Your task to perform on an android device: Search for "logitech g pro" on amazon.com, select the first entry, and add it to the cart. Image 0: 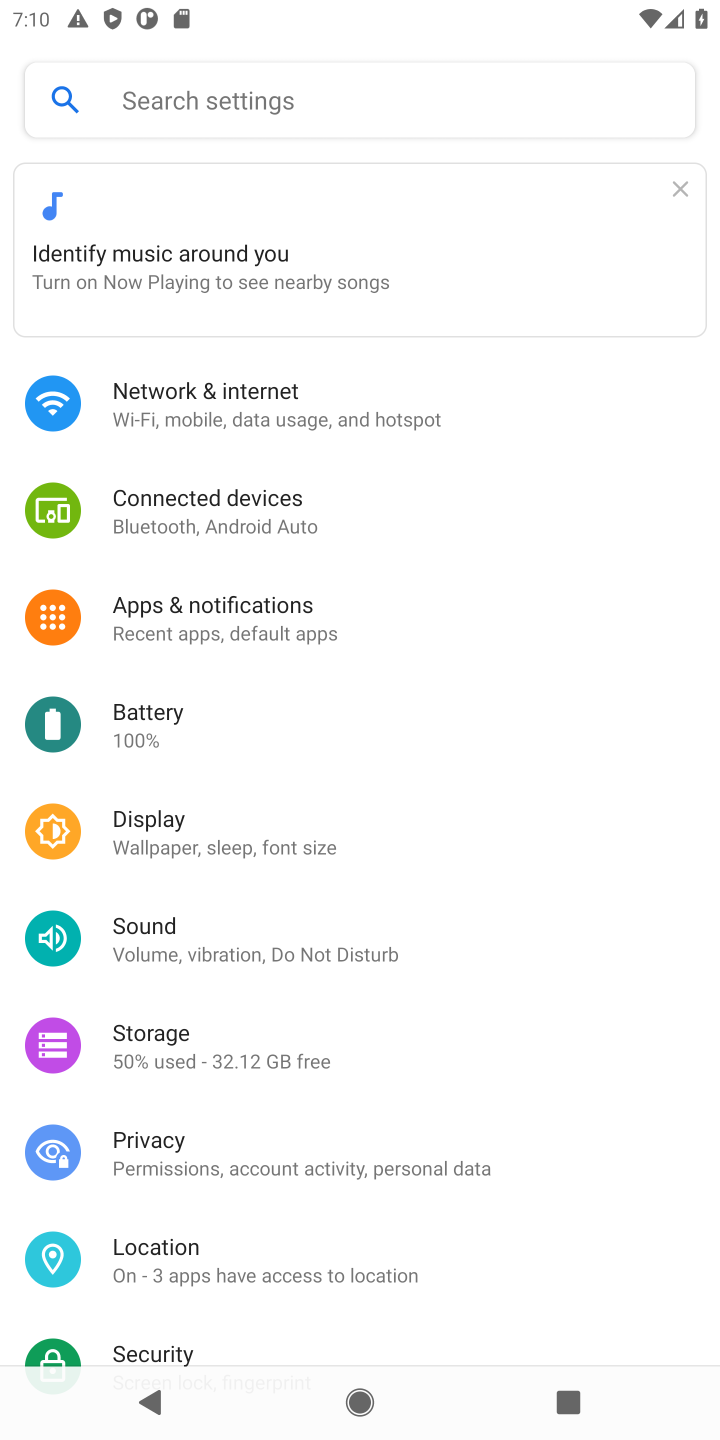
Step 0: press home button
Your task to perform on an android device: Search for "logitech g pro" on amazon.com, select the first entry, and add it to the cart. Image 1: 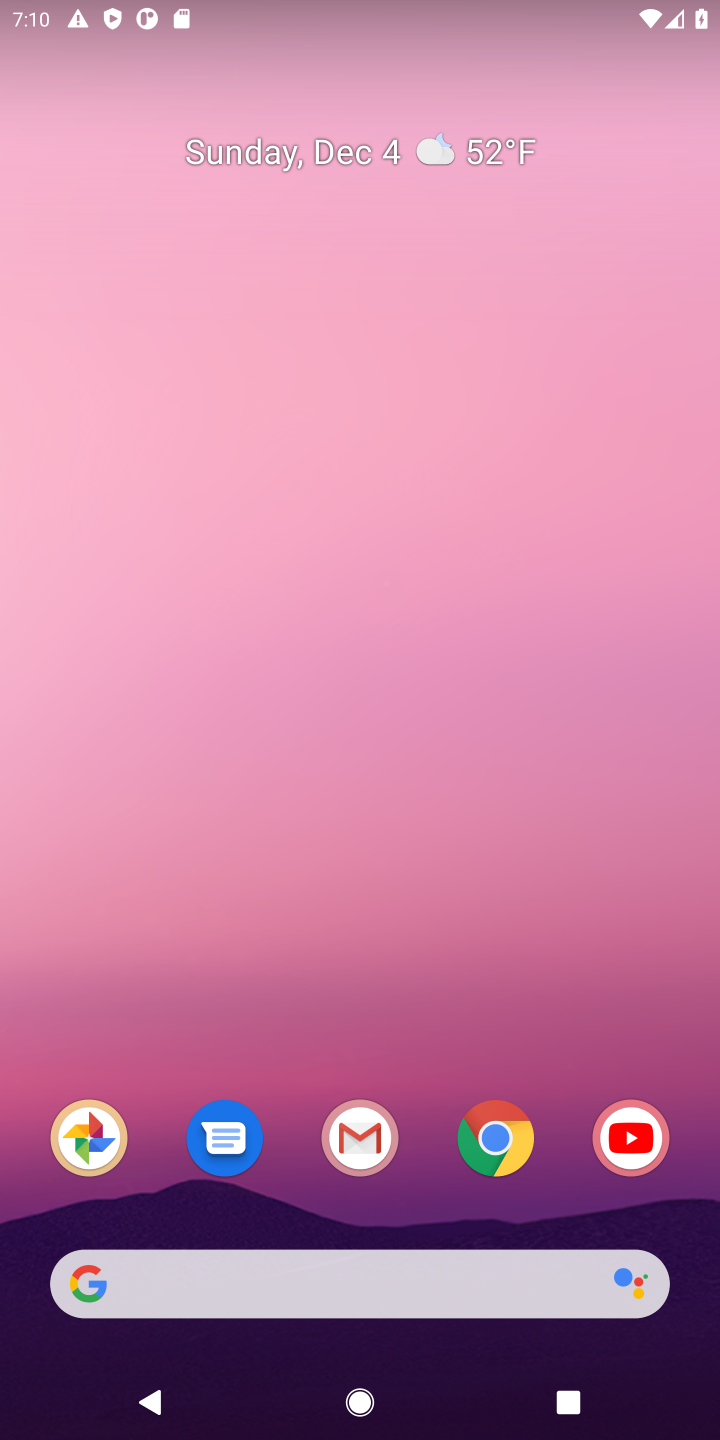
Step 1: click (506, 1144)
Your task to perform on an android device: Search for "logitech g pro" on amazon.com, select the first entry, and add it to the cart. Image 2: 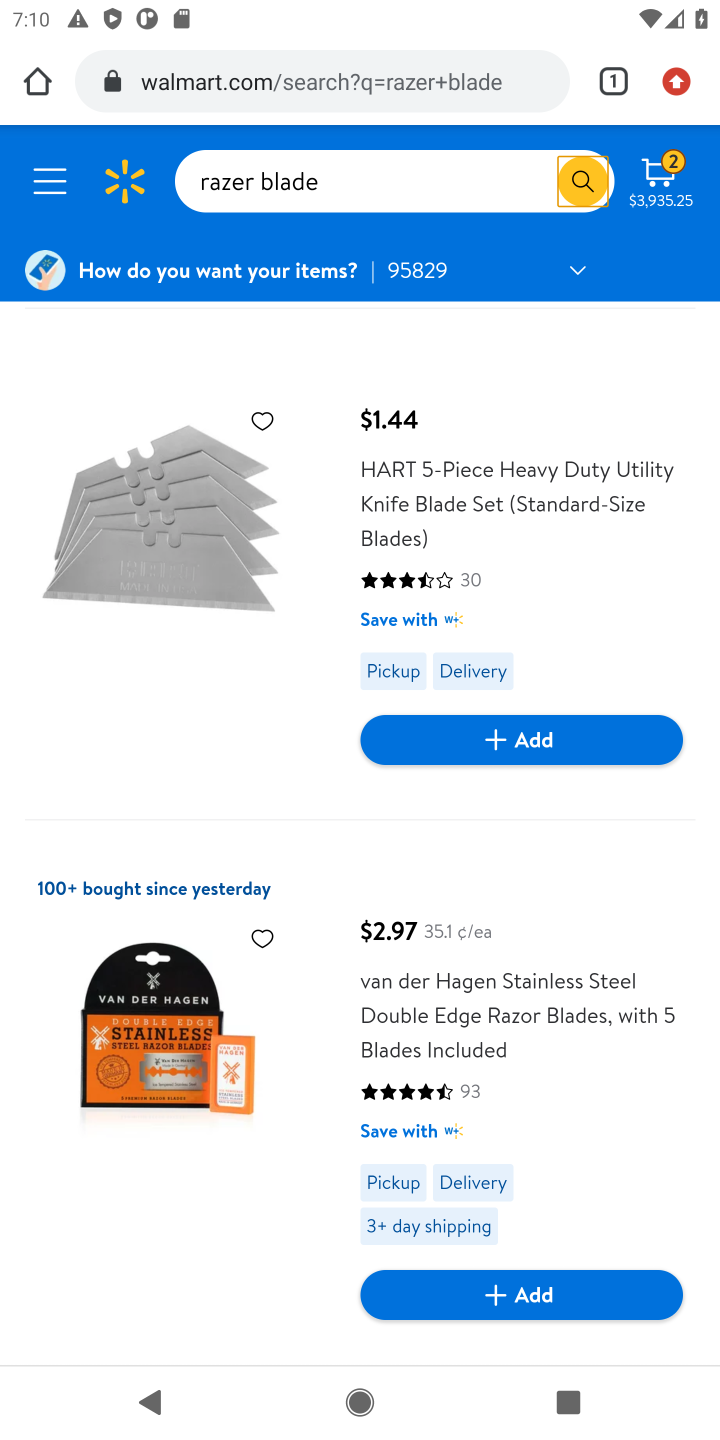
Step 2: click (397, 69)
Your task to perform on an android device: Search for "logitech g pro" on amazon.com, select the first entry, and add it to the cart. Image 3: 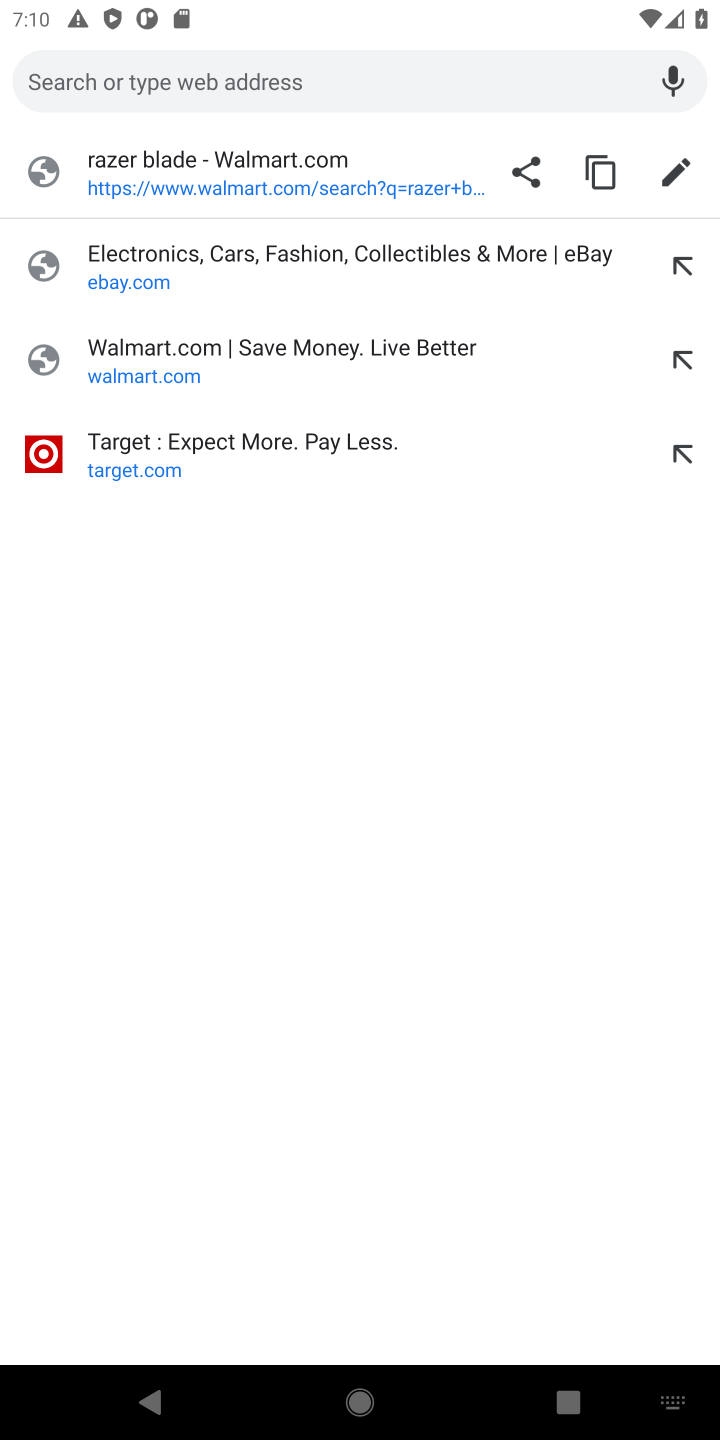
Step 3: type "amazon.com"
Your task to perform on an android device: Search for "logitech g pro" on amazon.com, select the first entry, and add it to the cart. Image 4: 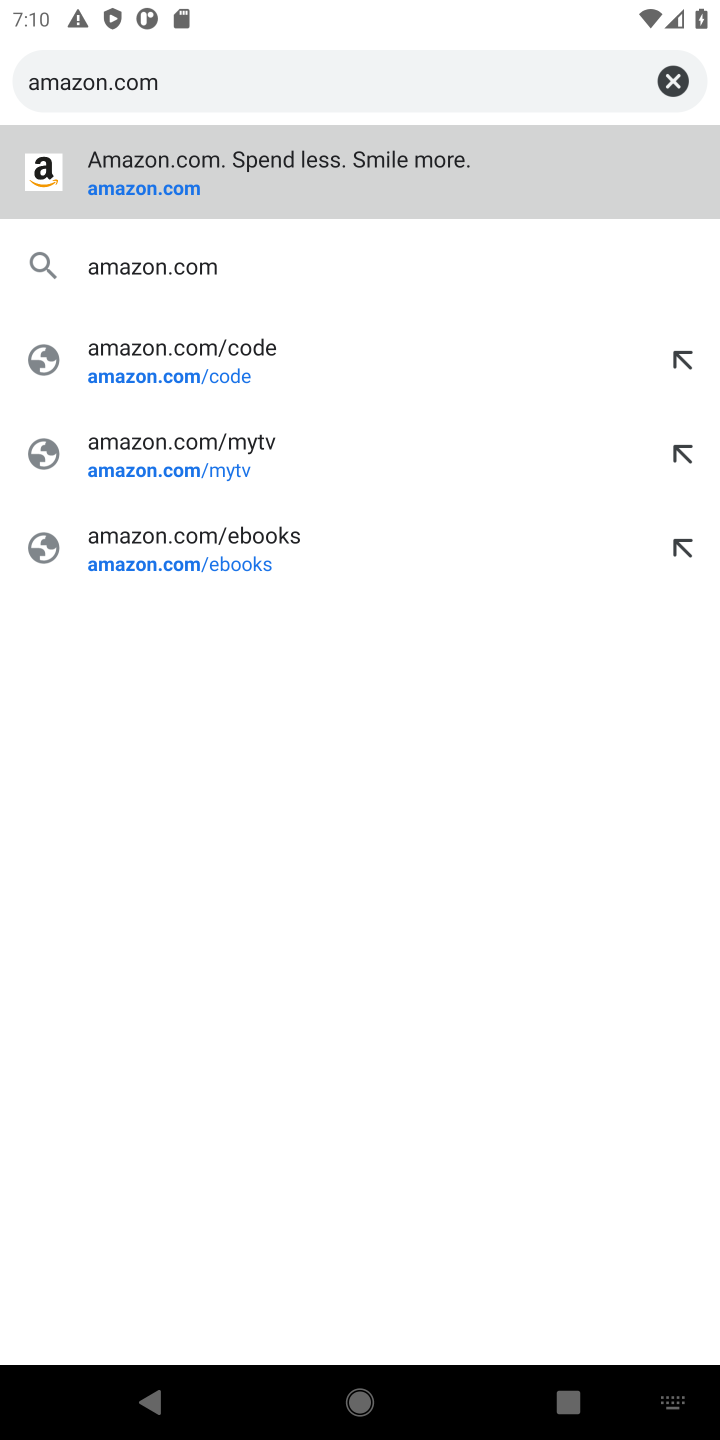
Step 4: press enter
Your task to perform on an android device: Search for "logitech g pro" on amazon.com, select the first entry, and add it to the cart. Image 5: 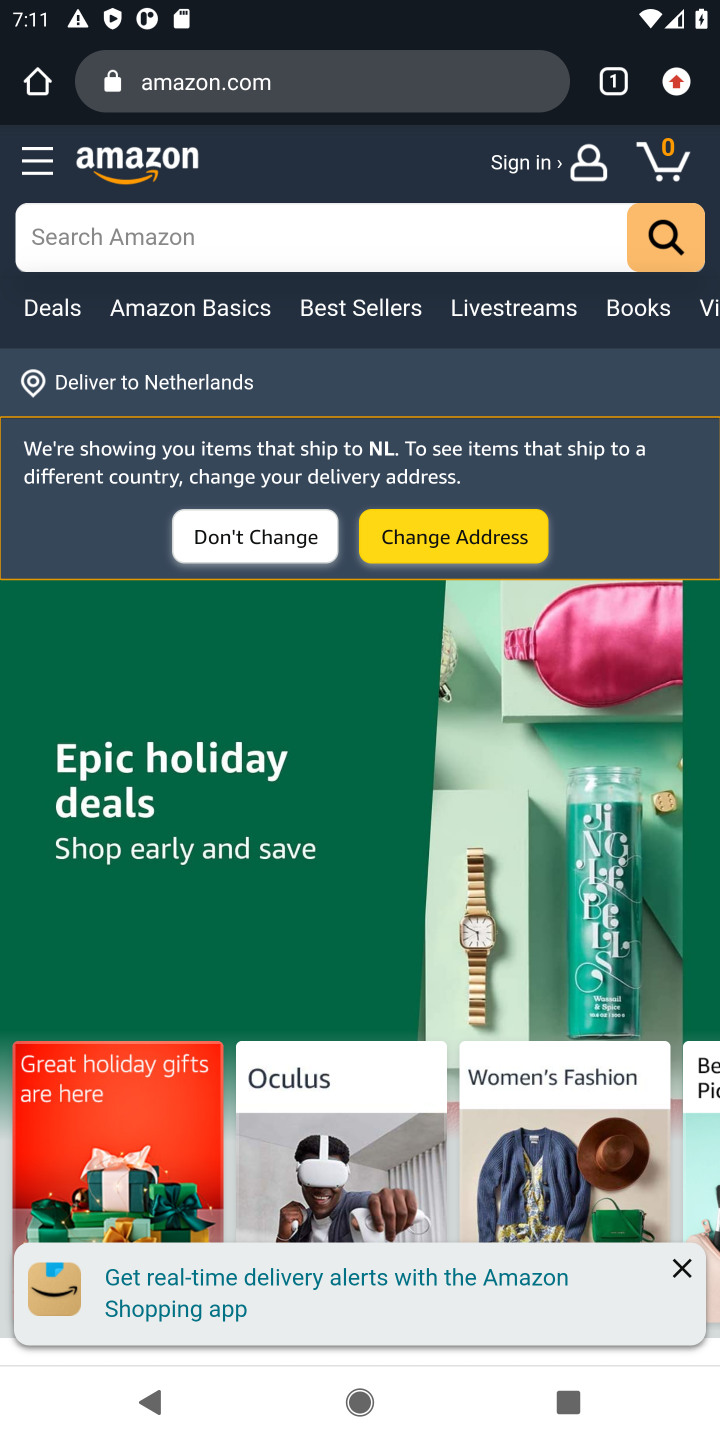
Step 5: click (364, 233)
Your task to perform on an android device: Search for "logitech g pro" on amazon.com, select the first entry, and add it to the cart. Image 6: 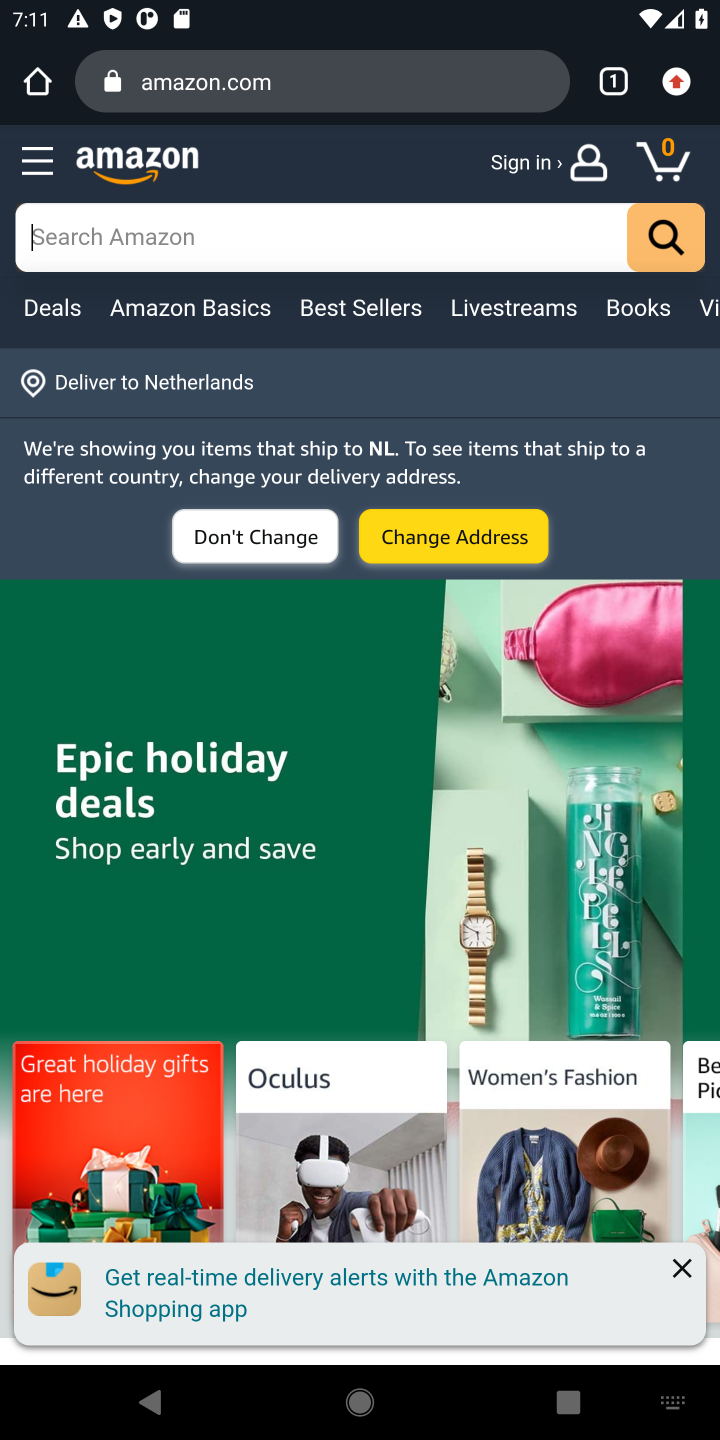
Step 6: press enter
Your task to perform on an android device: Search for "logitech g pro" on amazon.com, select the first entry, and add it to the cart. Image 7: 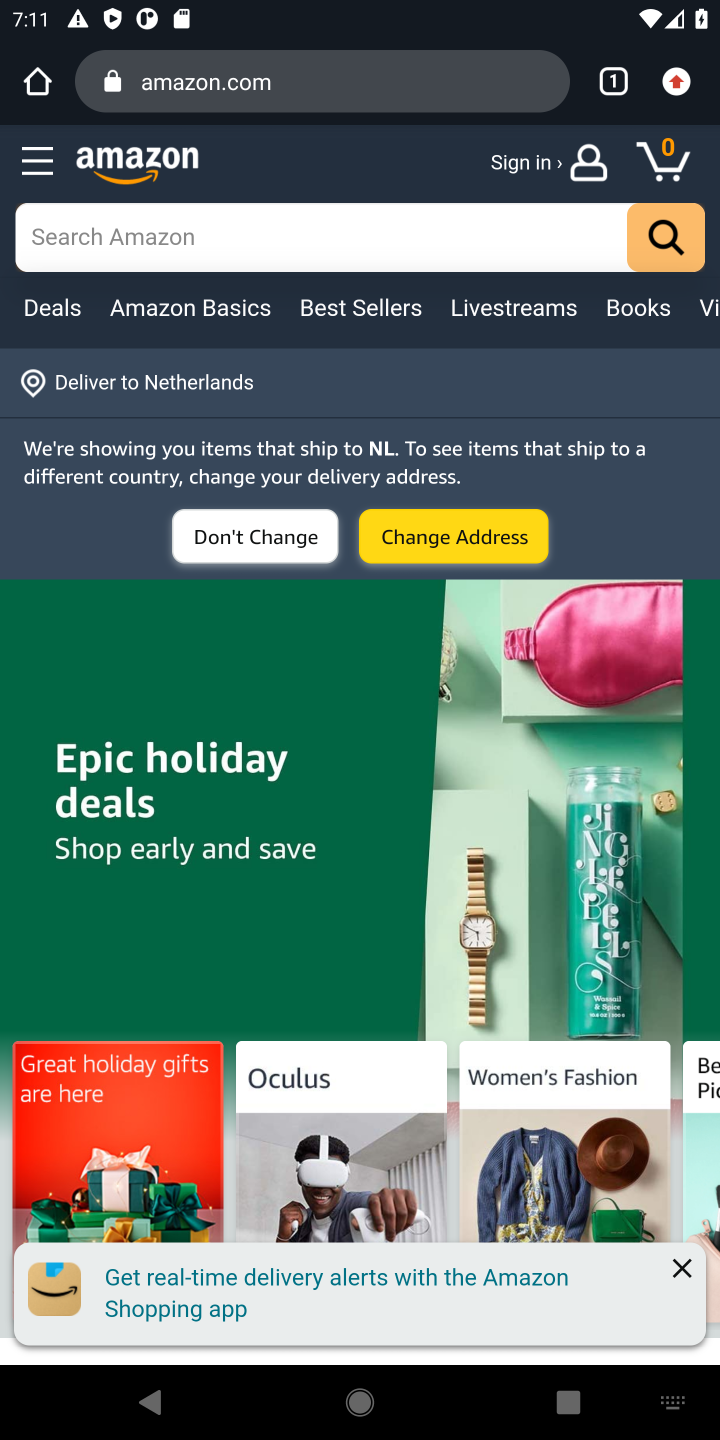
Step 7: type "logitech g pro"
Your task to perform on an android device: Search for "logitech g pro" on amazon.com, select the first entry, and add it to the cart. Image 8: 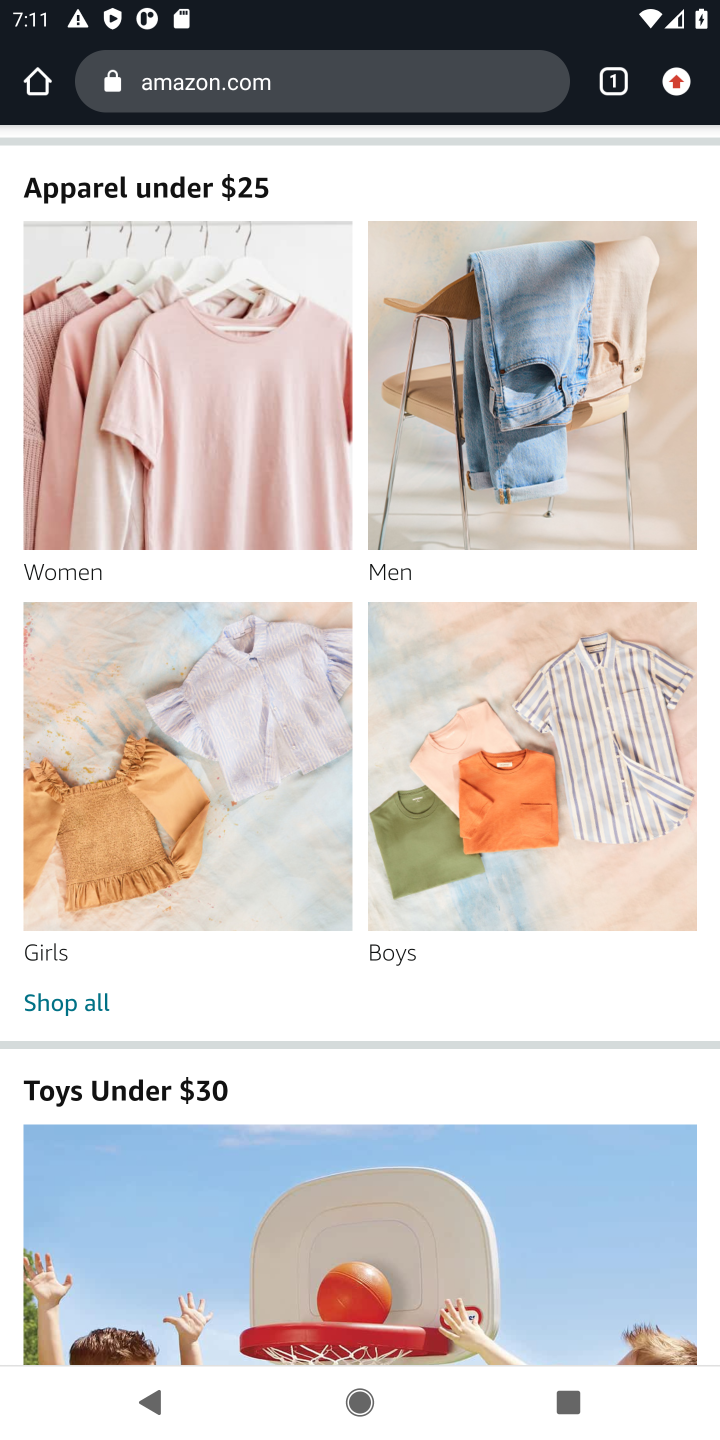
Step 8: press back button
Your task to perform on an android device: Search for "logitech g pro" on amazon.com, select the first entry, and add it to the cart. Image 9: 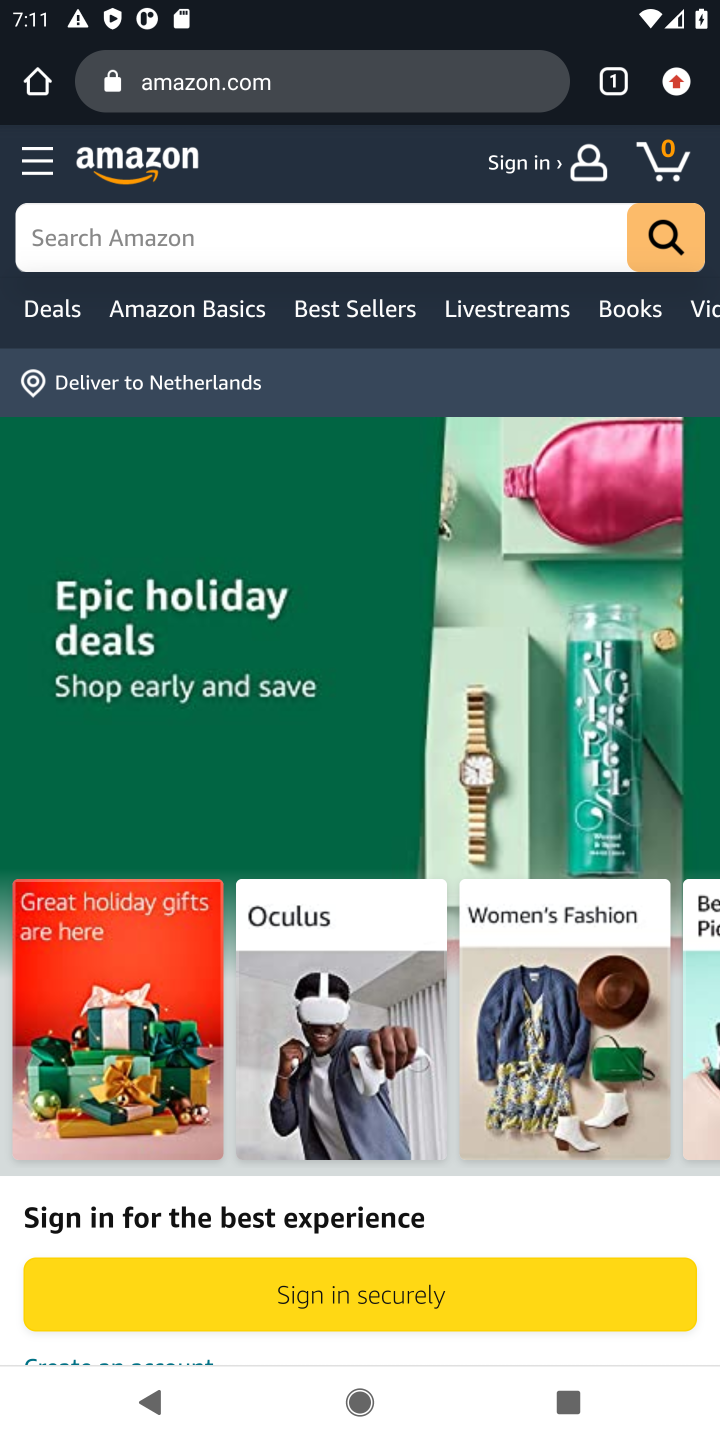
Step 9: click (507, 241)
Your task to perform on an android device: Search for "logitech g pro" on amazon.com, select the first entry, and add it to the cart. Image 10: 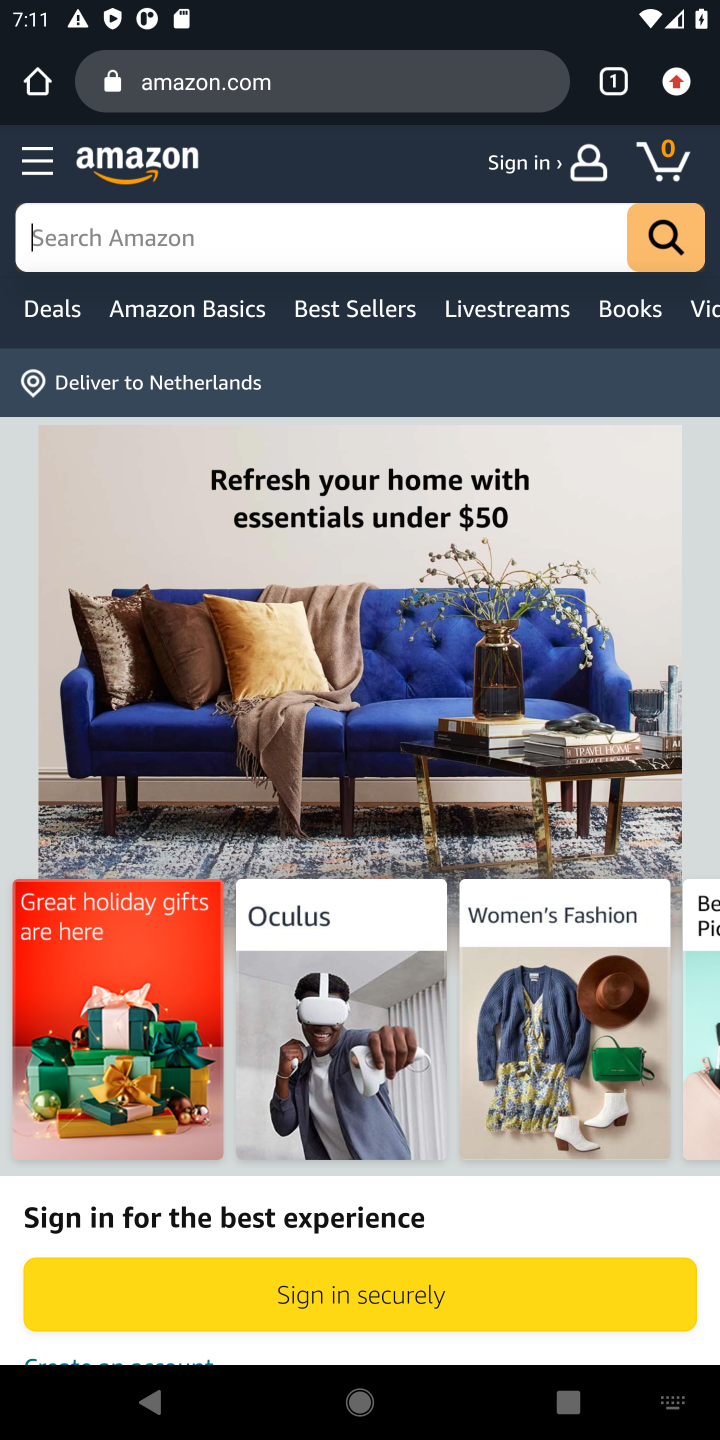
Step 10: press enter
Your task to perform on an android device: Search for "logitech g pro" on amazon.com, select the first entry, and add it to the cart. Image 11: 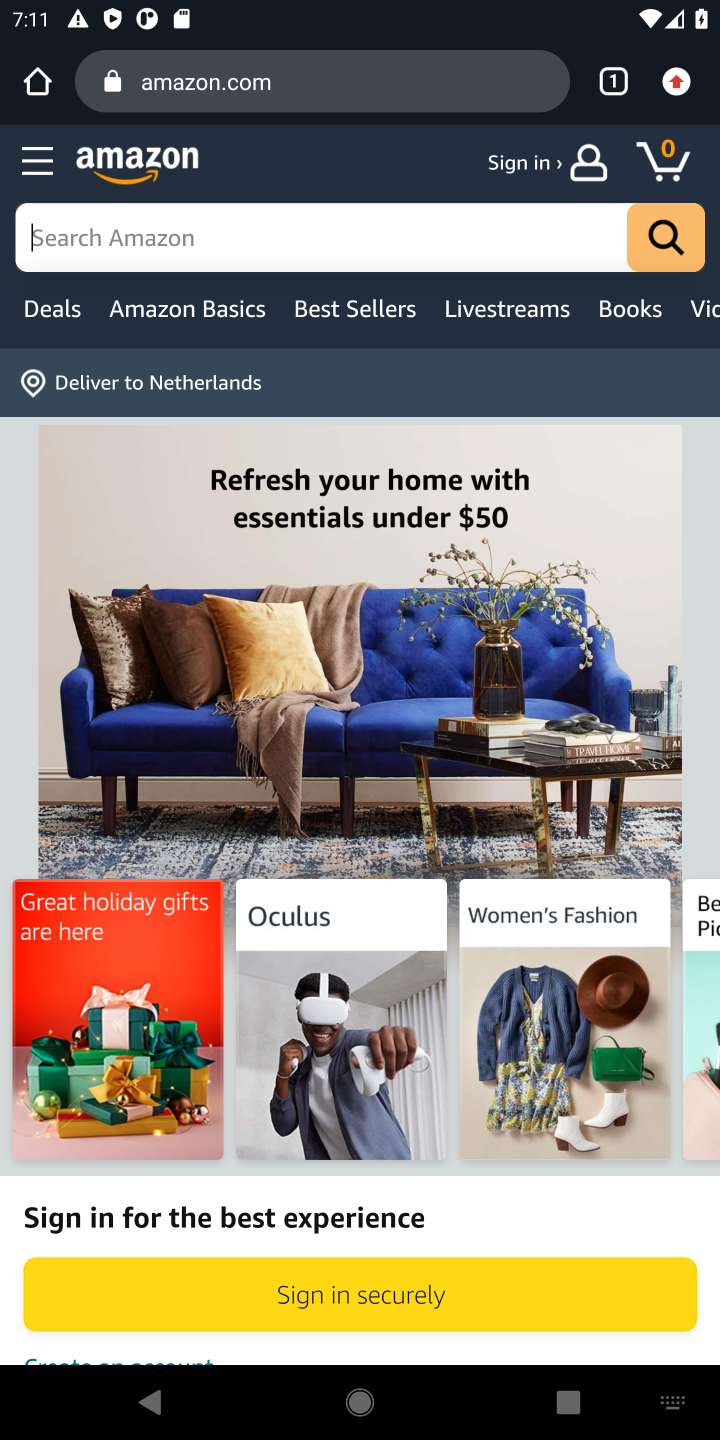
Step 11: type "logitech g pro"
Your task to perform on an android device: Search for "logitech g pro" on amazon.com, select the first entry, and add it to the cart. Image 12: 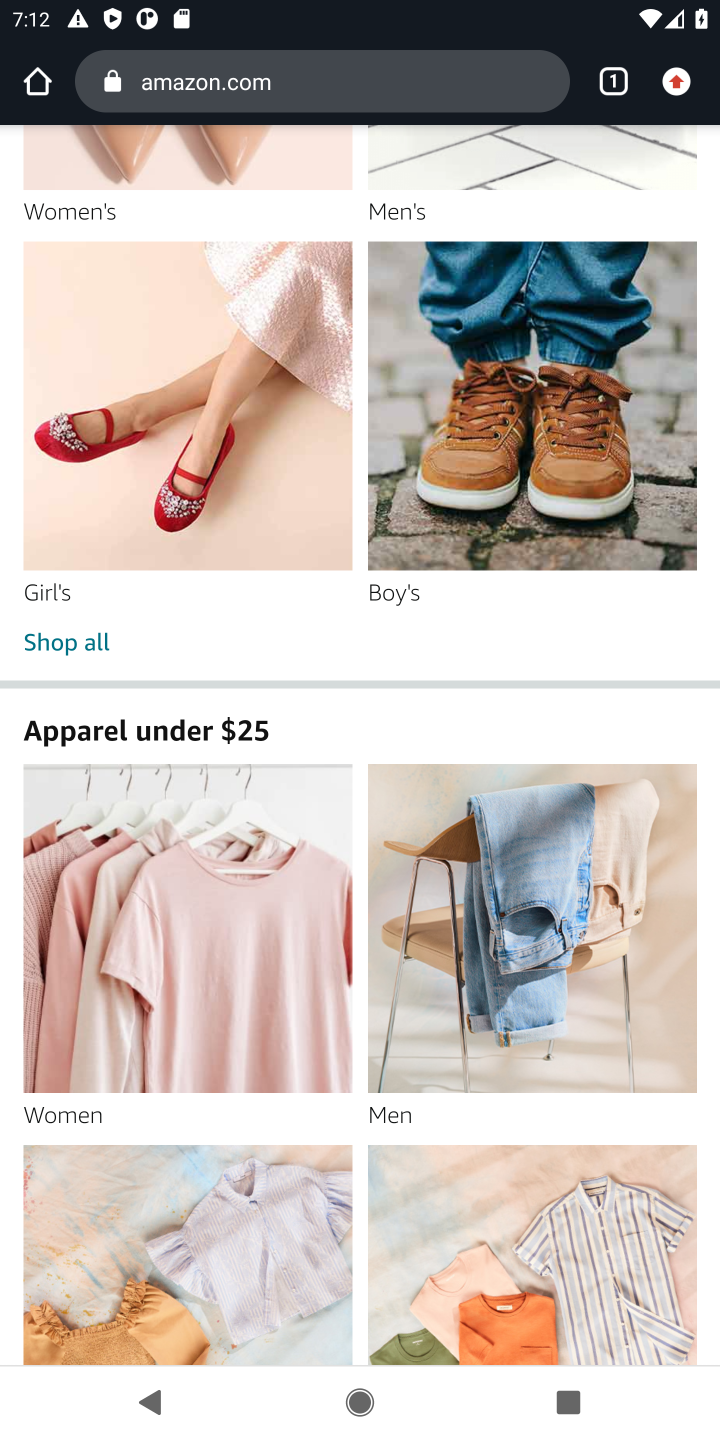
Step 12: press back button
Your task to perform on an android device: Search for "logitech g pro" on amazon.com, select the first entry, and add it to the cart. Image 13: 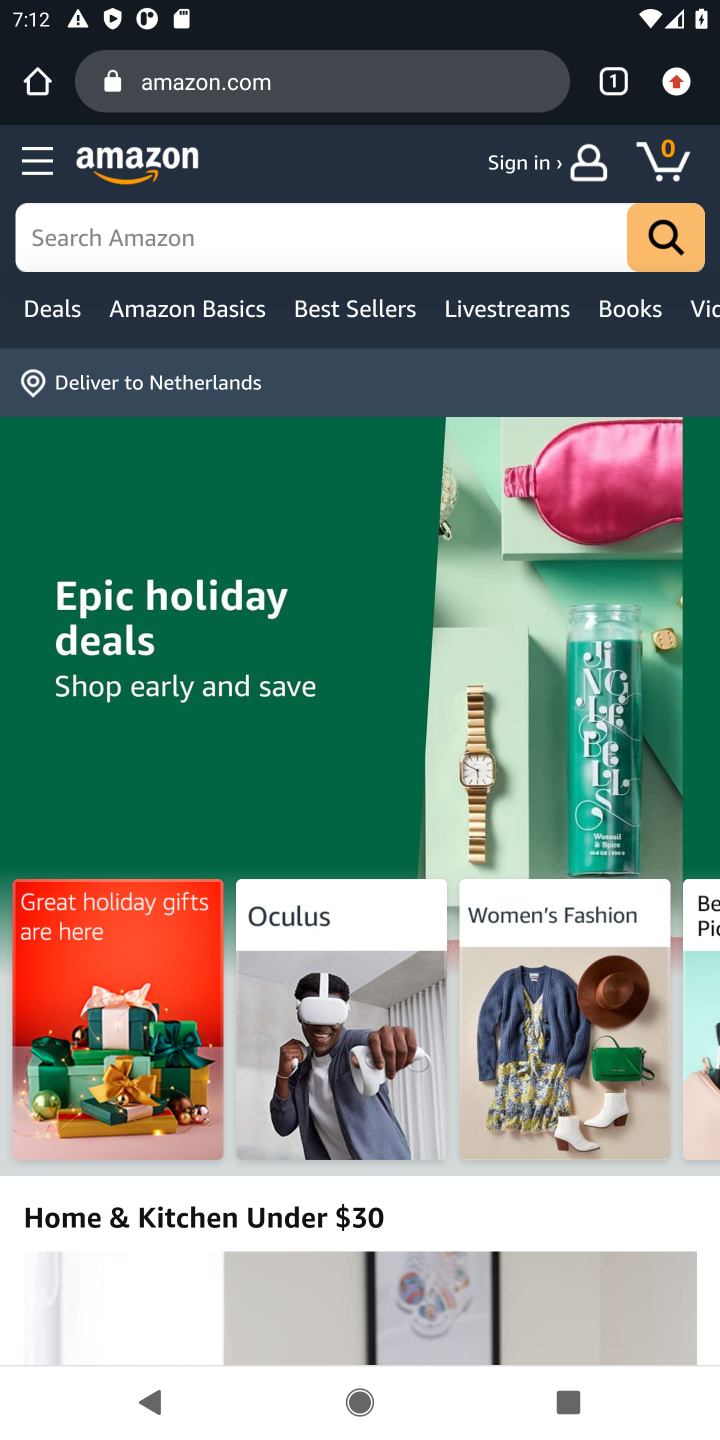
Step 13: click (550, 230)
Your task to perform on an android device: Search for "logitech g pro" on amazon.com, select the first entry, and add it to the cart. Image 14: 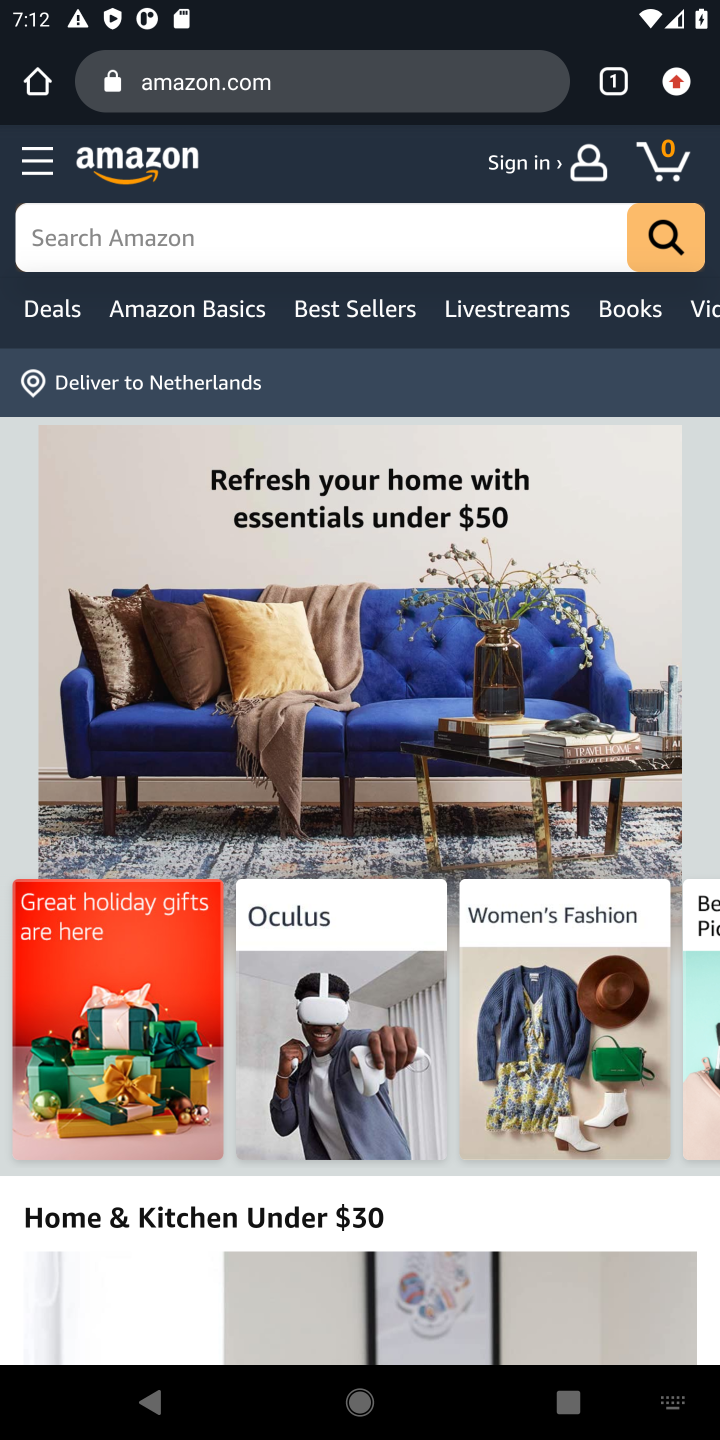
Step 14: press enter
Your task to perform on an android device: Search for "logitech g pro" on amazon.com, select the first entry, and add it to the cart. Image 15: 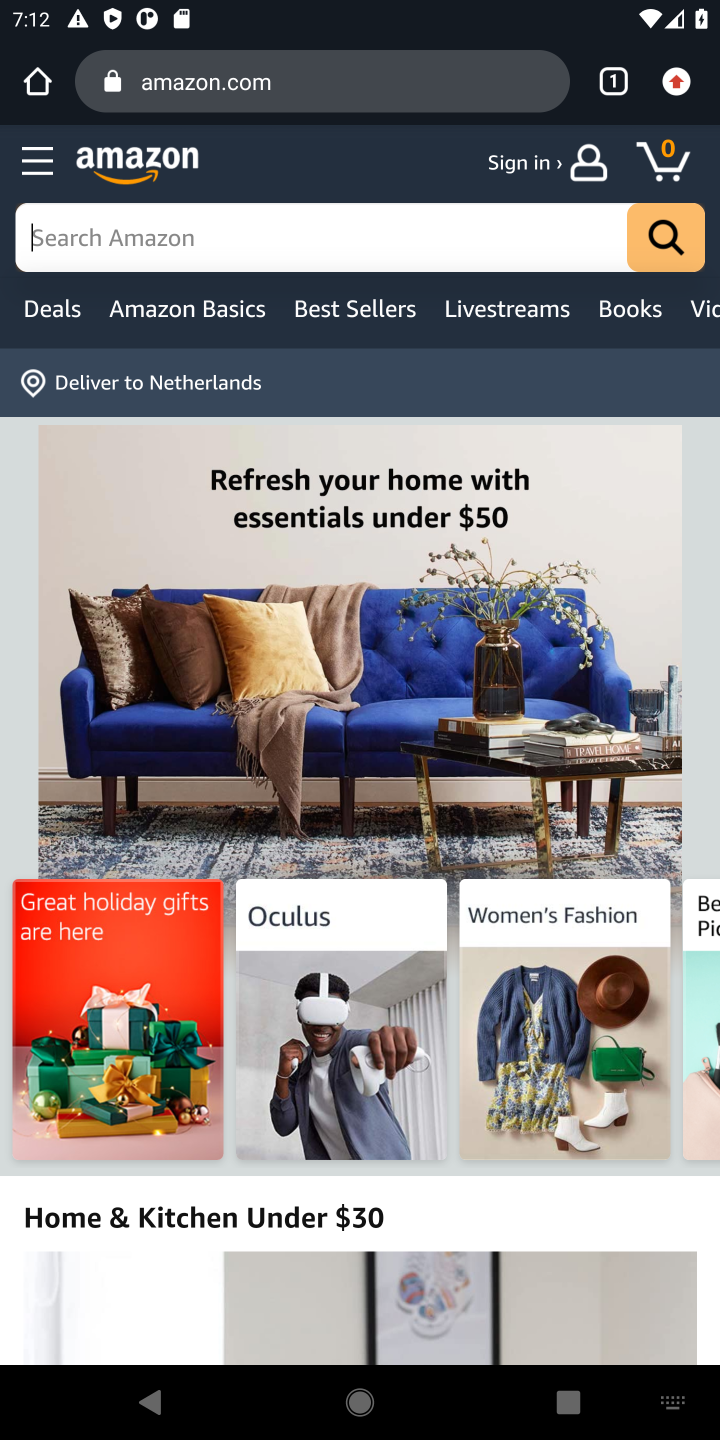
Step 15: type "logitech g pro"
Your task to perform on an android device: Search for "logitech g pro" on amazon.com, select the first entry, and add it to the cart. Image 16: 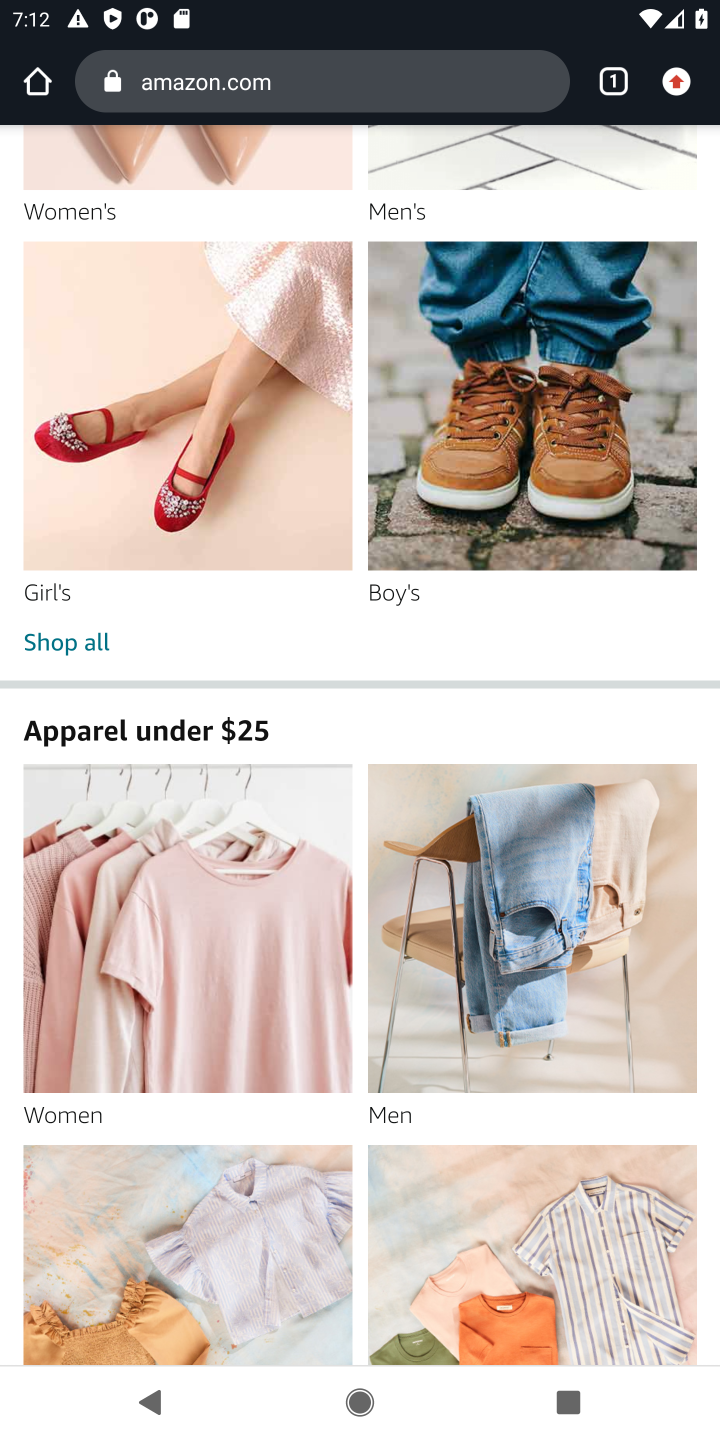
Step 16: task complete